Your task to perform on an android device: Show me the alarms in the clock app Image 0: 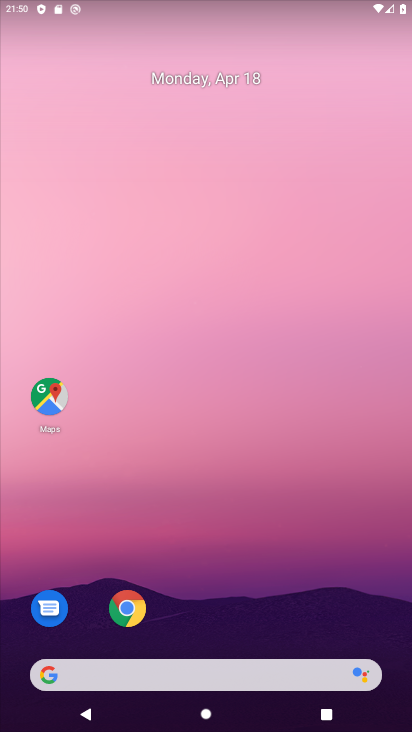
Step 0: drag from (212, 471) to (197, 161)
Your task to perform on an android device: Show me the alarms in the clock app Image 1: 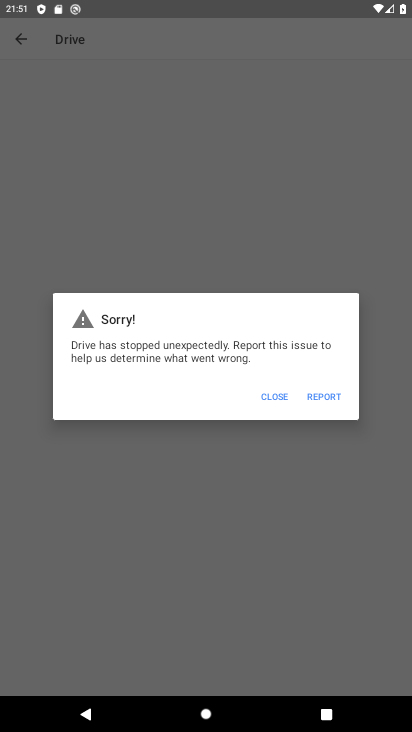
Step 1: press home button
Your task to perform on an android device: Show me the alarms in the clock app Image 2: 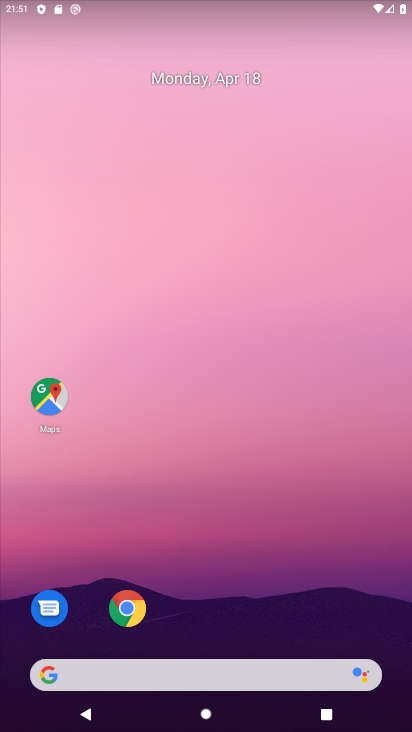
Step 2: drag from (234, 605) to (247, 146)
Your task to perform on an android device: Show me the alarms in the clock app Image 3: 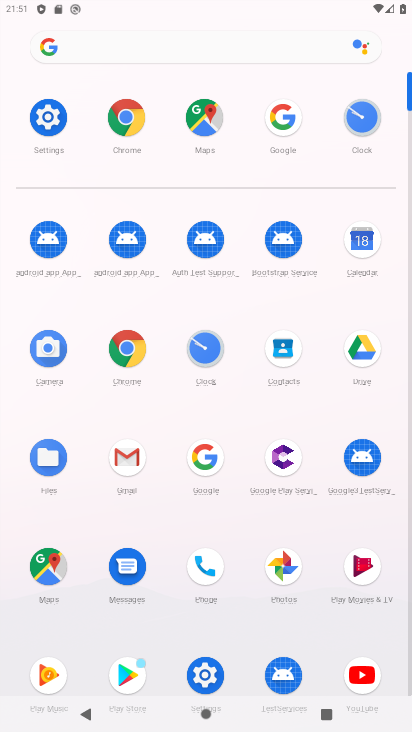
Step 3: click (202, 351)
Your task to perform on an android device: Show me the alarms in the clock app Image 4: 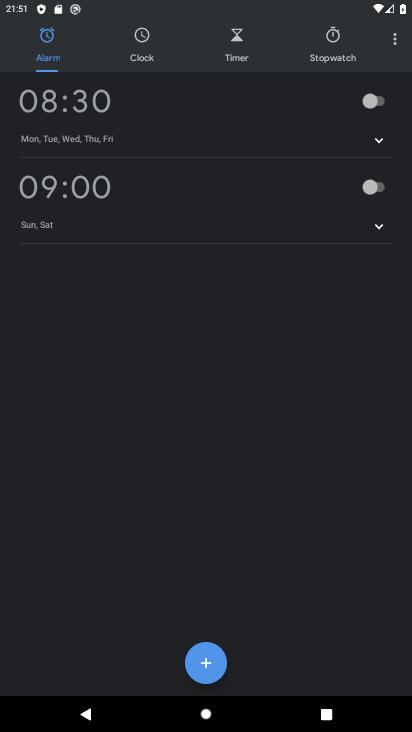
Step 4: click (391, 38)
Your task to perform on an android device: Show me the alarms in the clock app Image 5: 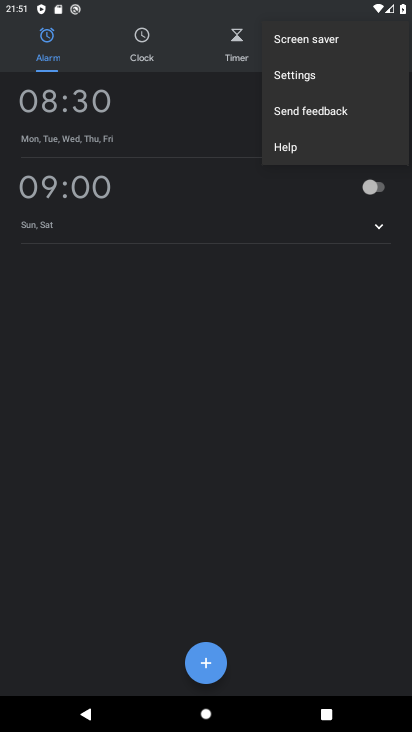
Step 5: task complete